Your task to perform on an android device: Open Google Image 0: 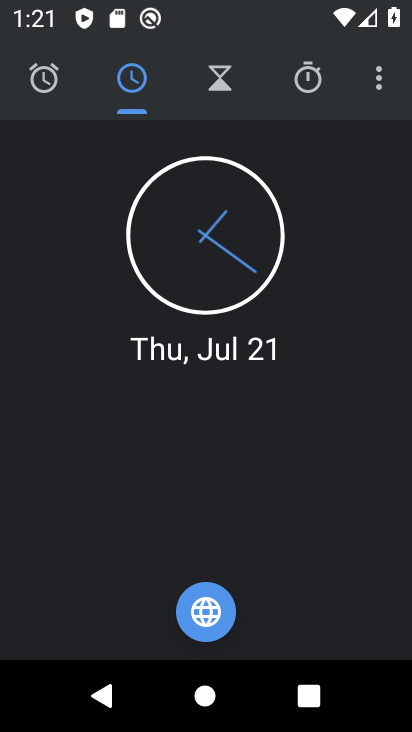
Step 0: press back button
Your task to perform on an android device: Open Google Image 1: 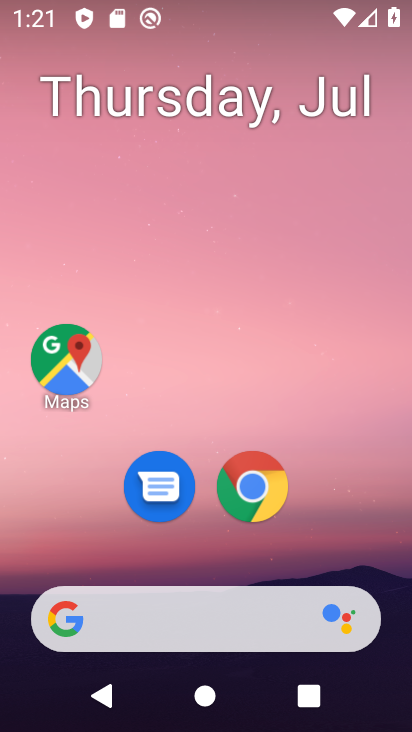
Step 1: drag from (182, 469) to (239, 63)
Your task to perform on an android device: Open Google Image 2: 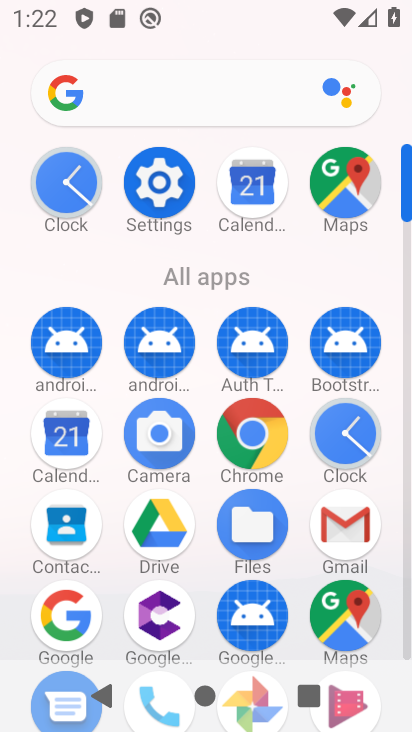
Step 2: click (64, 617)
Your task to perform on an android device: Open Google Image 3: 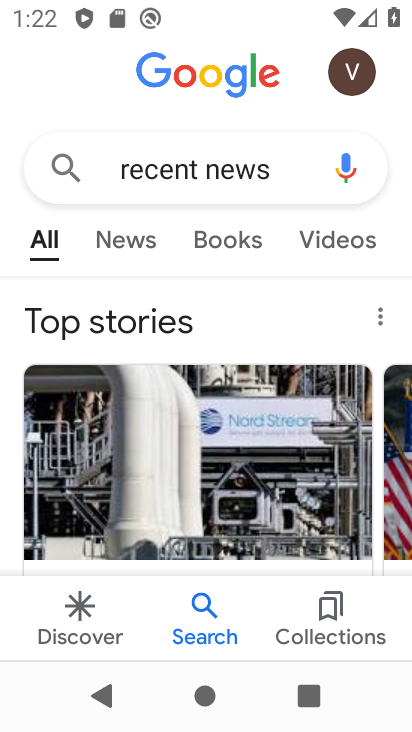
Step 3: task complete